Your task to perform on an android device: Go to network settings Image 0: 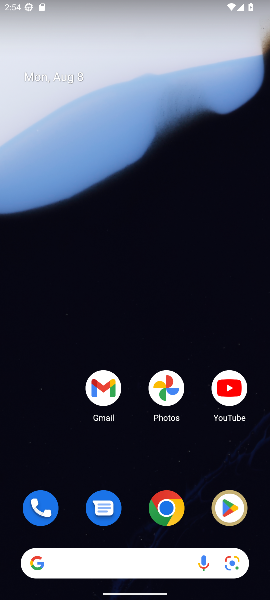
Step 0: drag from (36, 471) to (59, 206)
Your task to perform on an android device: Go to network settings Image 1: 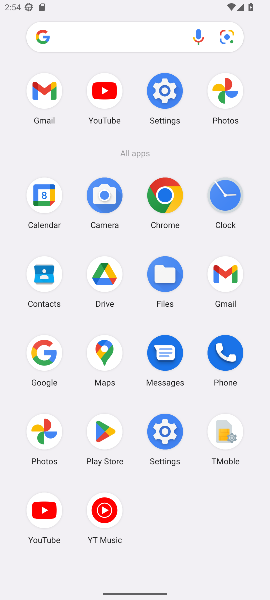
Step 1: click (162, 88)
Your task to perform on an android device: Go to network settings Image 2: 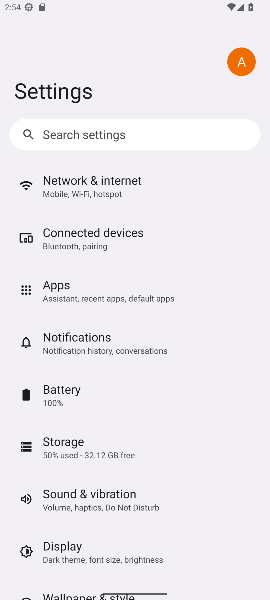
Step 2: click (89, 183)
Your task to perform on an android device: Go to network settings Image 3: 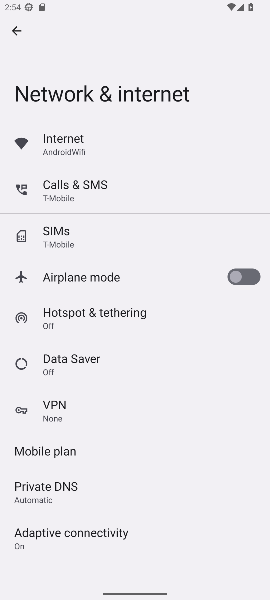
Step 3: task complete